Your task to perform on an android device: Go to display settings Image 0: 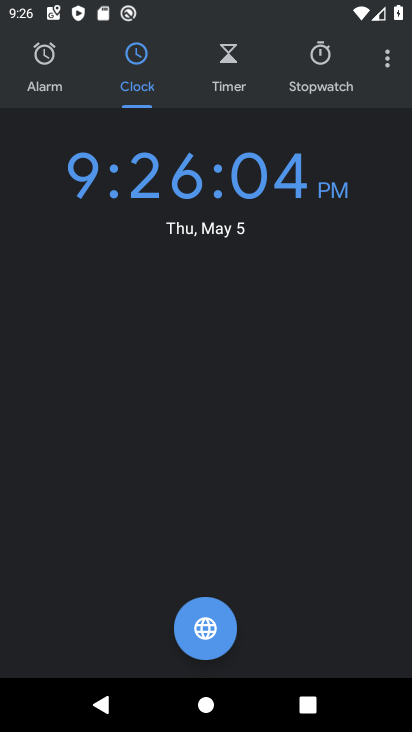
Step 0: press home button
Your task to perform on an android device: Go to display settings Image 1: 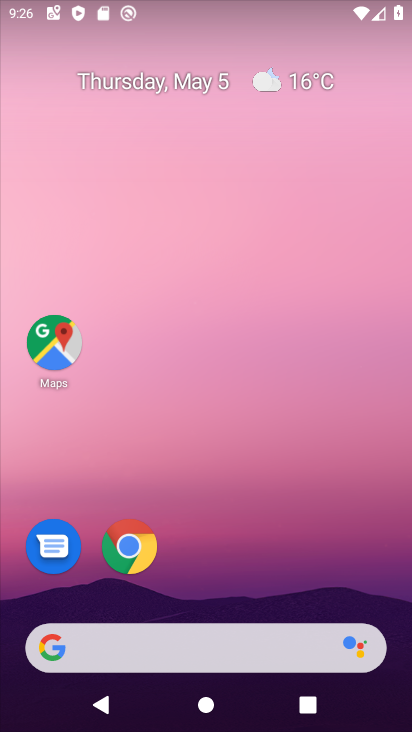
Step 1: drag from (197, 656) to (315, 59)
Your task to perform on an android device: Go to display settings Image 2: 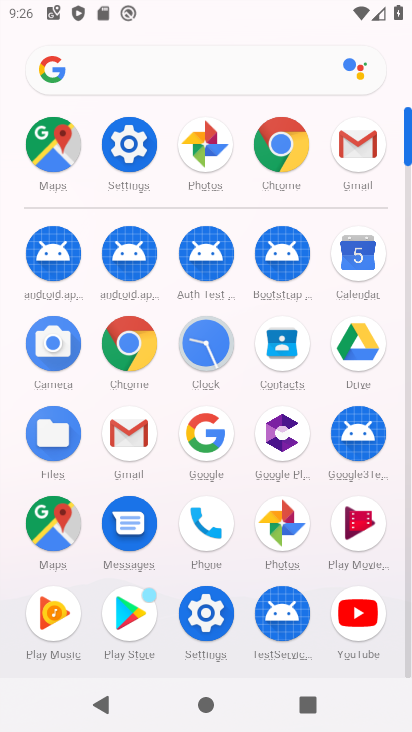
Step 2: click (125, 158)
Your task to perform on an android device: Go to display settings Image 3: 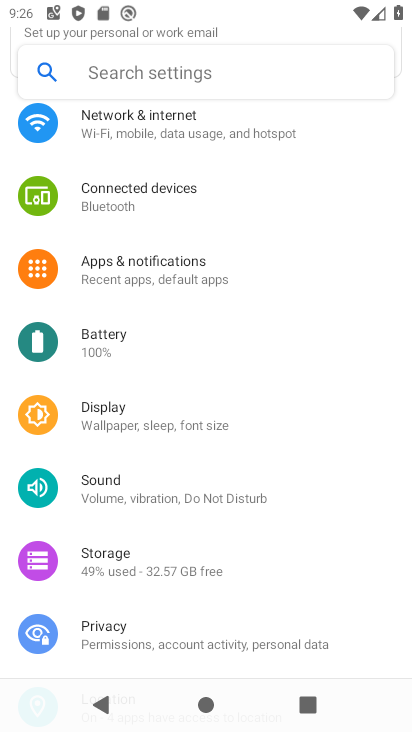
Step 3: click (129, 410)
Your task to perform on an android device: Go to display settings Image 4: 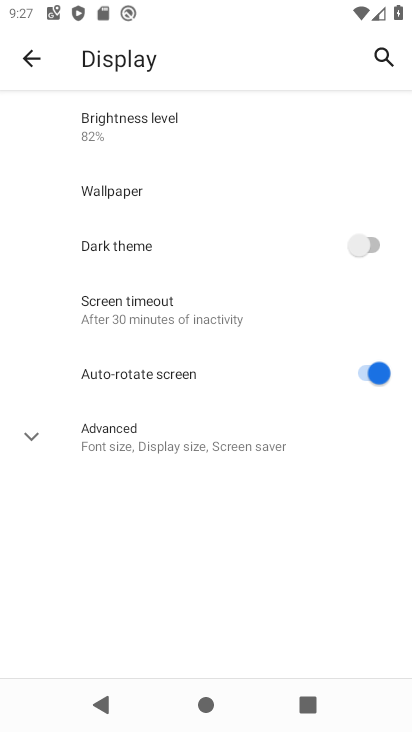
Step 4: task complete